Your task to perform on an android device: change the clock style Image 0: 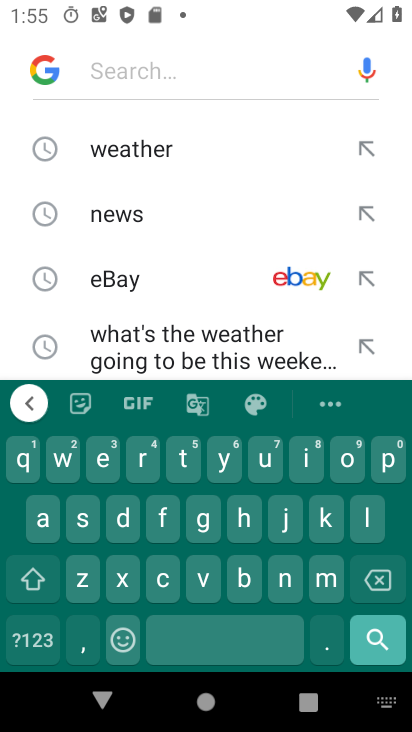
Step 0: press home button
Your task to perform on an android device: change the clock style Image 1: 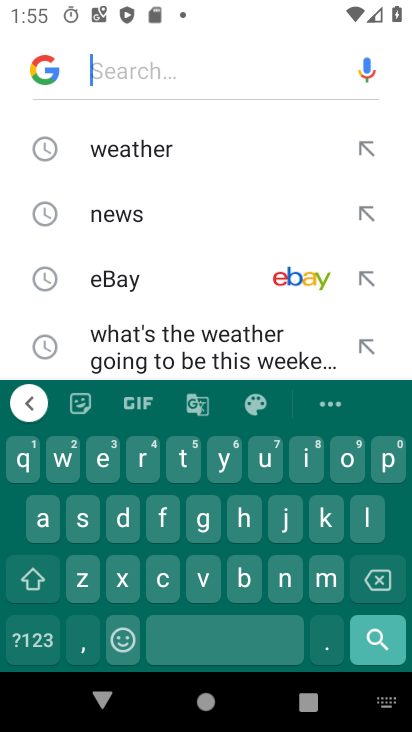
Step 1: press home button
Your task to perform on an android device: change the clock style Image 2: 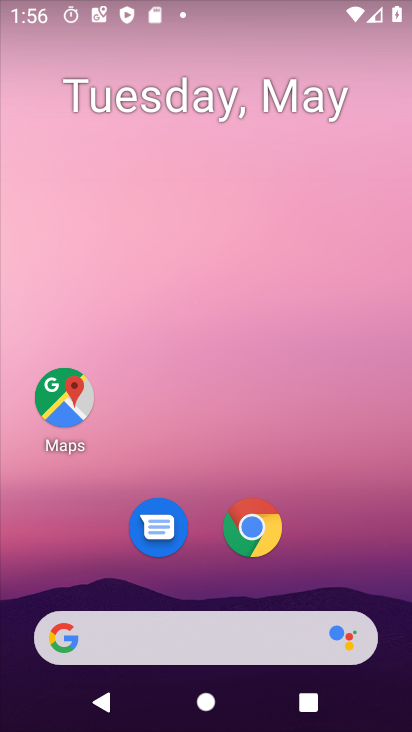
Step 2: drag from (241, 678) to (163, 246)
Your task to perform on an android device: change the clock style Image 3: 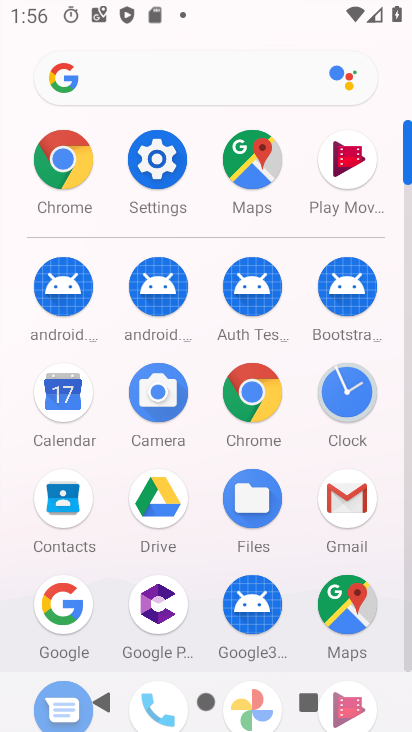
Step 3: click (332, 379)
Your task to perform on an android device: change the clock style Image 4: 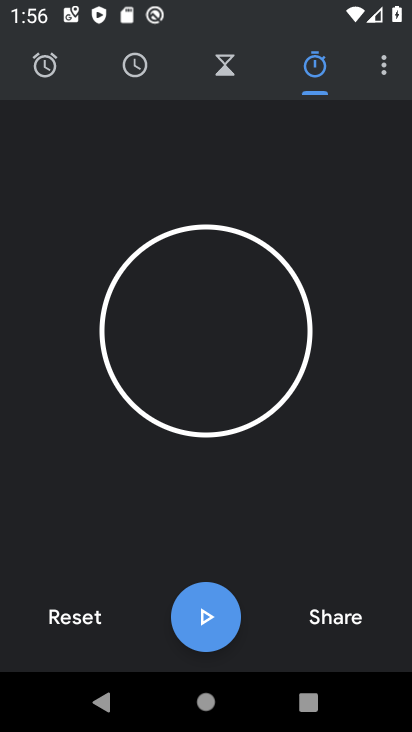
Step 4: click (388, 66)
Your task to perform on an android device: change the clock style Image 5: 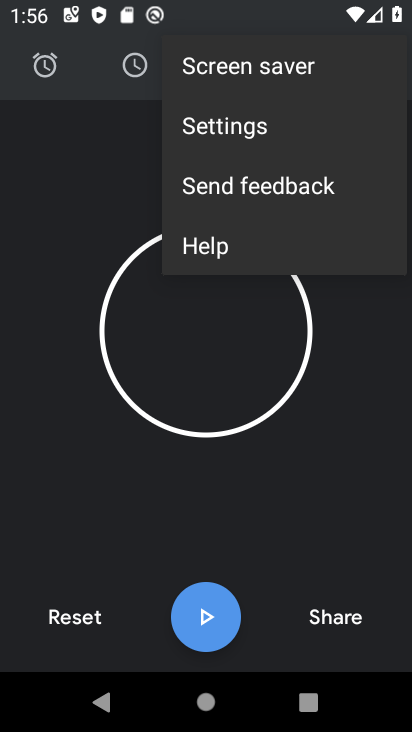
Step 5: click (242, 130)
Your task to perform on an android device: change the clock style Image 6: 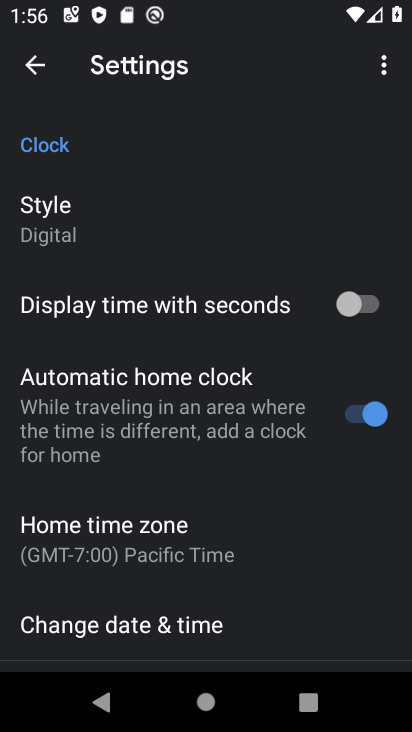
Step 6: click (102, 211)
Your task to perform on an android device: change the clock style Image 7: 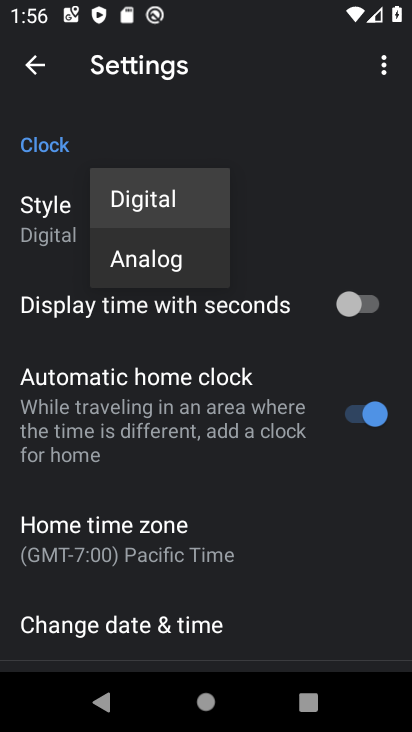
Step 7: click (169, 258)
Your task to perform on an android device: change the clock style Image 8: 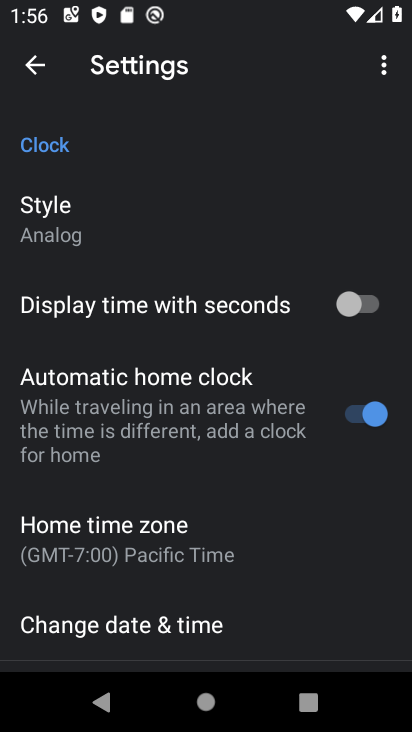
Step 8: task complete